Your task to perform on an android device: turn on location history Image 0: 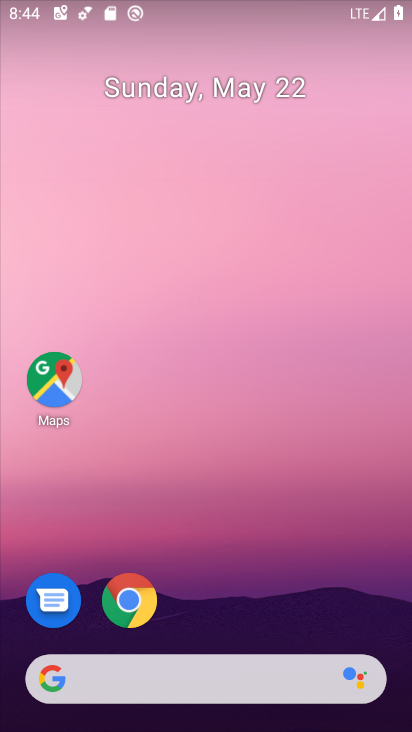
Step 0: drag from (226, 511) to (294, 205)
Your task to perform on an android device: turn on location history Image 1: 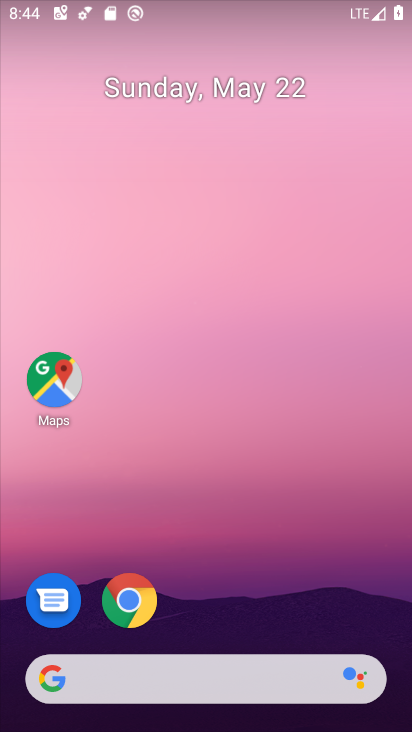
Step 1: drag from (239, 681) to (288, 265)
Your task to perform on an android device: turn on location history Image 2: 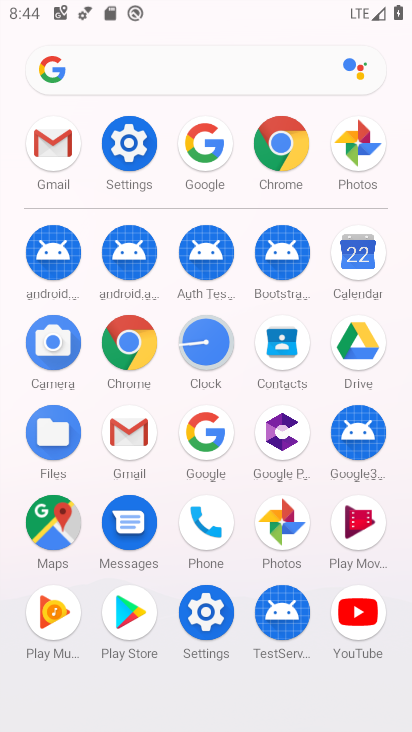
Step 2: click (148, 156)
Your task to perform on an android device: turn on location history Image 3: 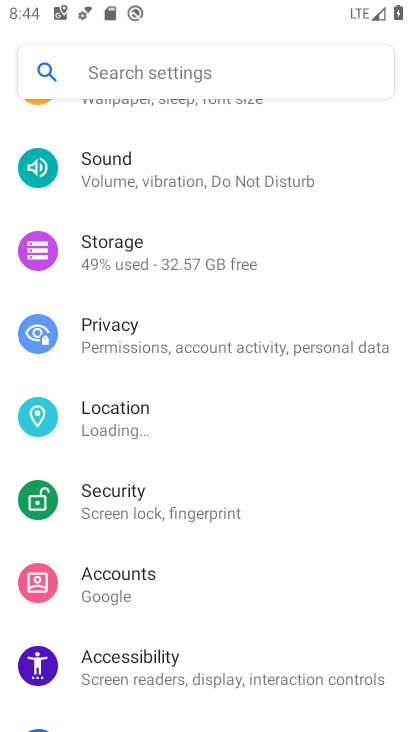
Step 3: drag from (169, 675) to (232, 186)
Your task to perform on an android device: turn on location history Image 4: 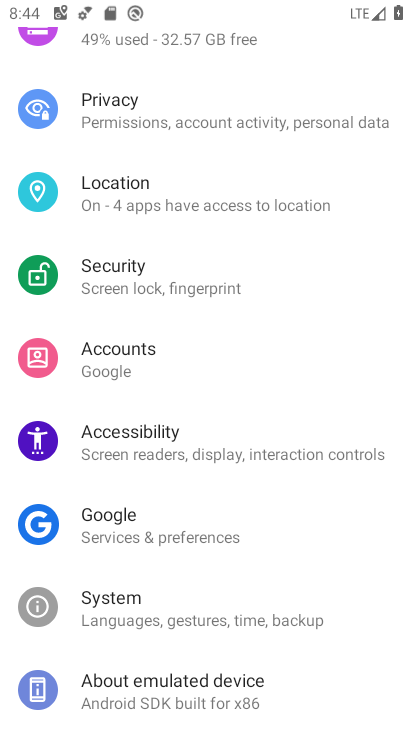
Step 4: drag from (242, 87) to (242, 494)
Your task to perform on an android device: turn on location history Image 5: 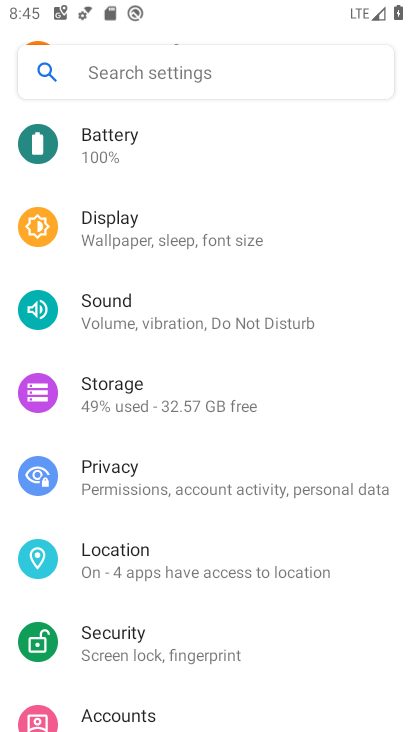
Step 5: click (120, 557)
Your task to perform on an android device: turn on location history Image 6: 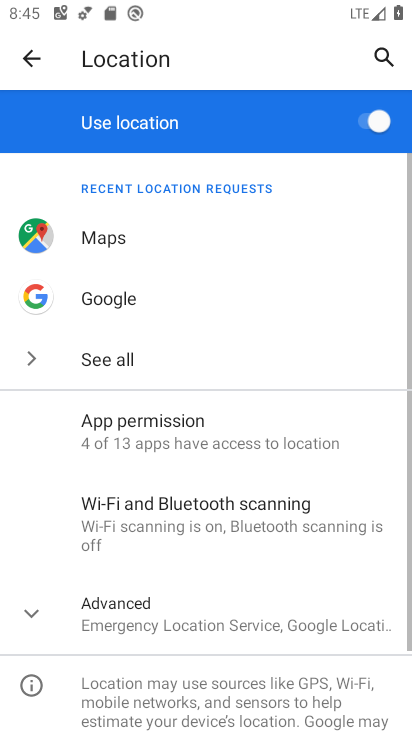
Step 6: click (115, 618)
Your task to perform on an android device: turn on location history Image 7: 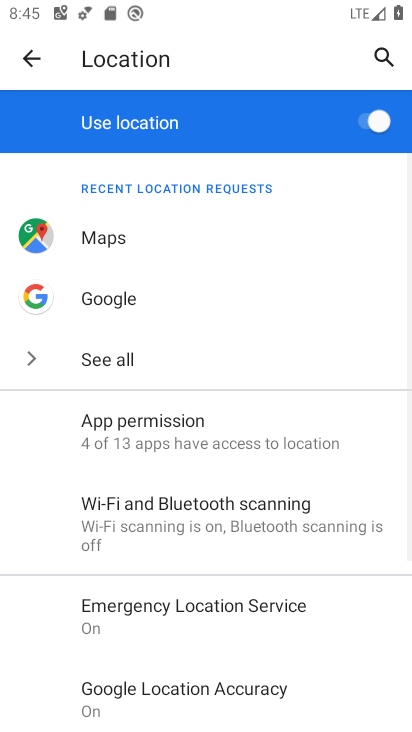
Step 7: drag from (169, 695) to (243, 353)
Your task to perform on an android device: turn on location history Image 8: 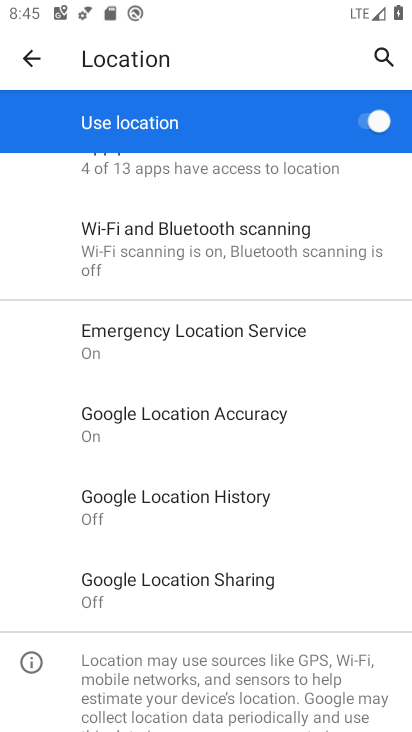
Step 8: click (247, 505)
Your task to perform on an android device: turn on location history Image 9: 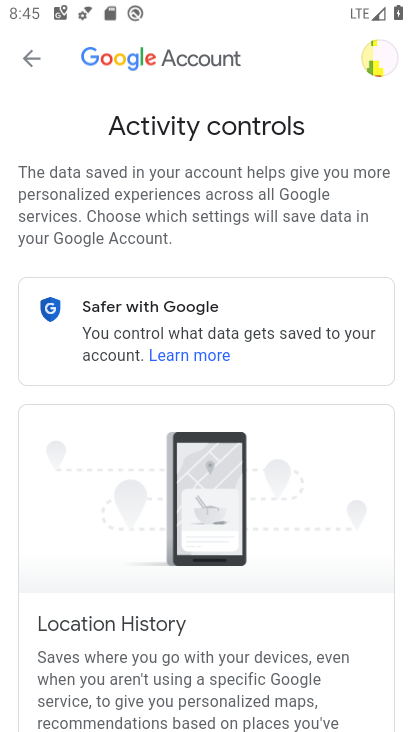
Step 9: drag from (107, 576) to (166, 267)
Your task to perform on an android device: turn on location history Image 10: 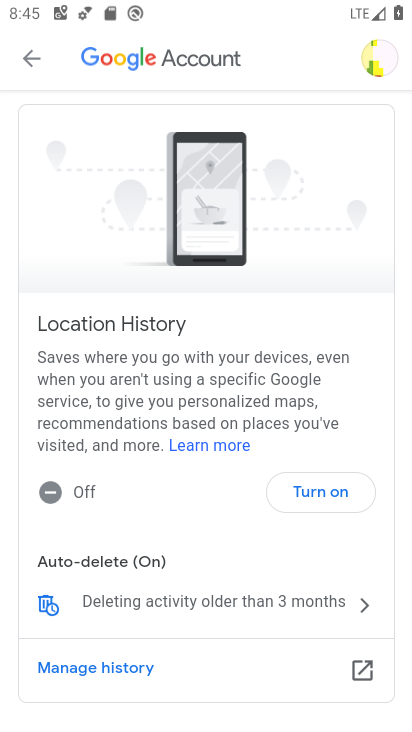
Step 10: click (331, 486)
Your task to perform on an android device: turn on location history Image 11: 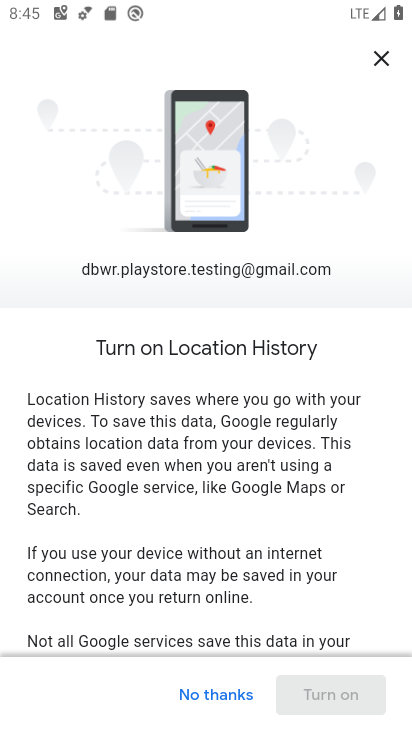
Step 11: drag from (324, 605) to (379, 254)
Your task to perform on an android device: turn on location history Image 12: 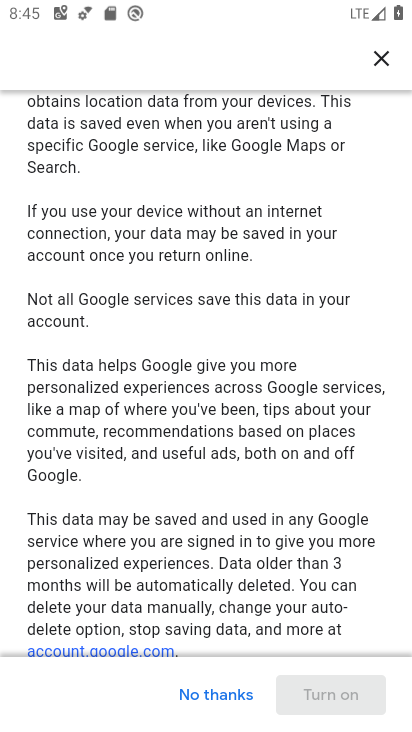
Step 12: drag from (367, 603) to (398, 331)
Your task to perform on an android device: turn on location history Image 13: 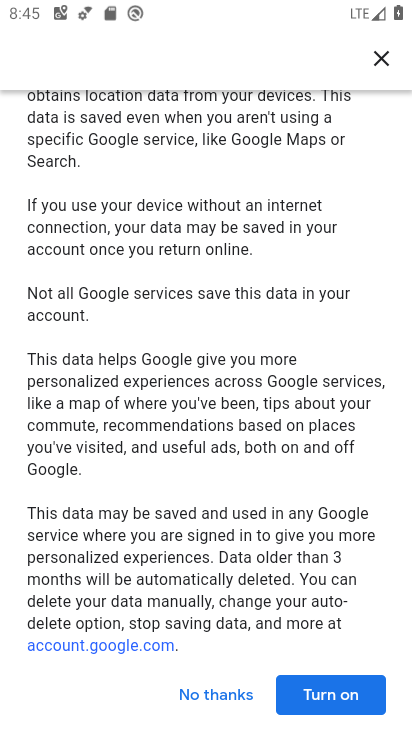
Step 13: click (348, 696)
Your task to perform on an android device: turn on location history Image 14: 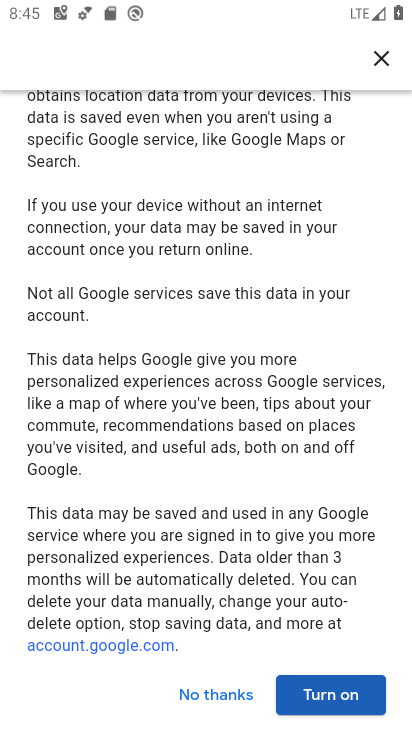
Step 14: click (340, 695)
Your task to perform on an android device: turn on location history Image 15: 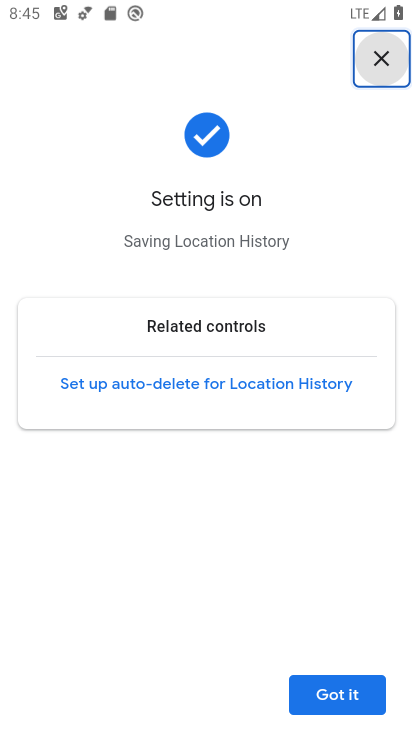
Step 15: click (327, 690)
Your task to perform on an android device: turn on location history Image 16: 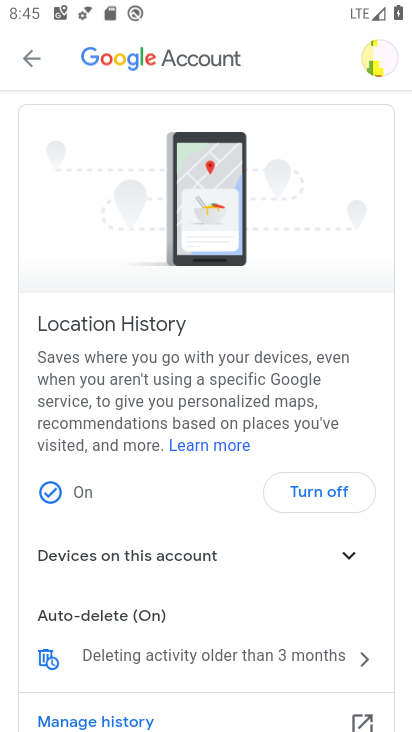
Step 16: task complete